Your task to perform on an android device: toggle sleep mode Image 0: 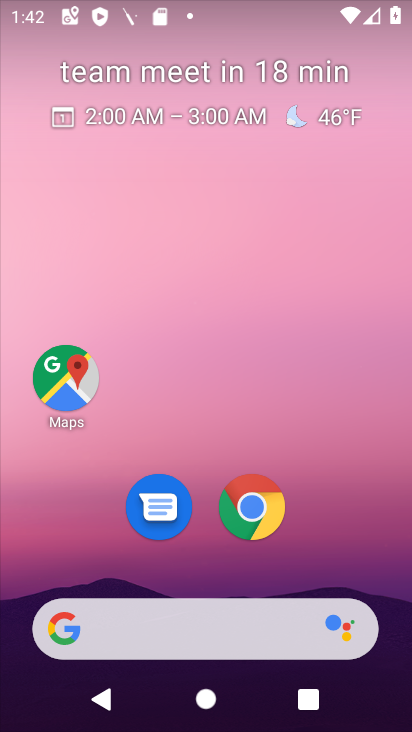
Step 0: drag from (270, 664) to (362, 84)
Your task to perform on an android device: toggle sleep mode Image 1: 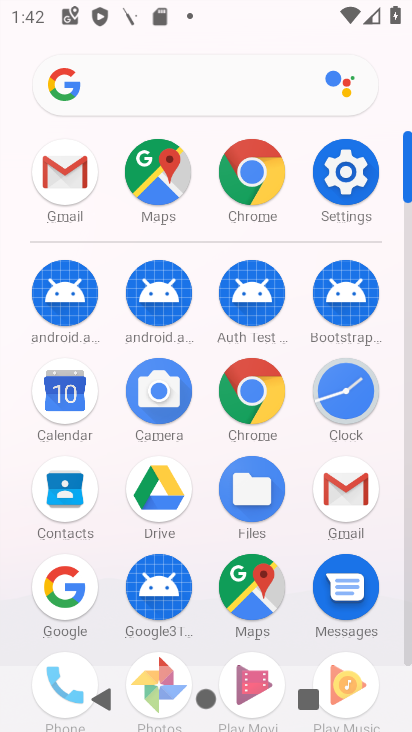
Step 1: click (326, 167)
Your task to perform on an android device: toggle sleep mode Image 2: 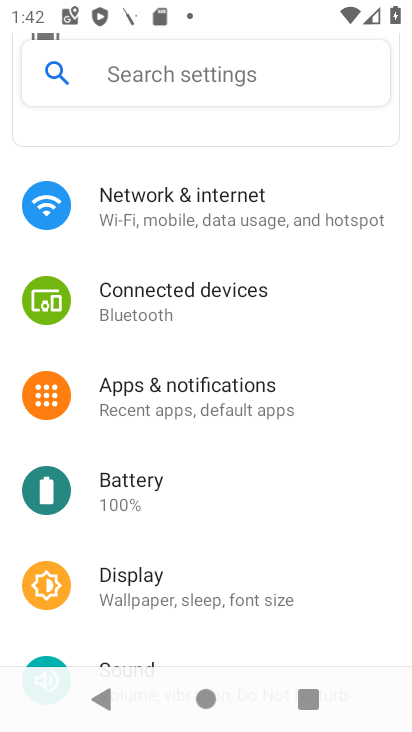
Step 2: click (197, 78)
Your task to perform on an android device: toggle sleep mode Image 3: 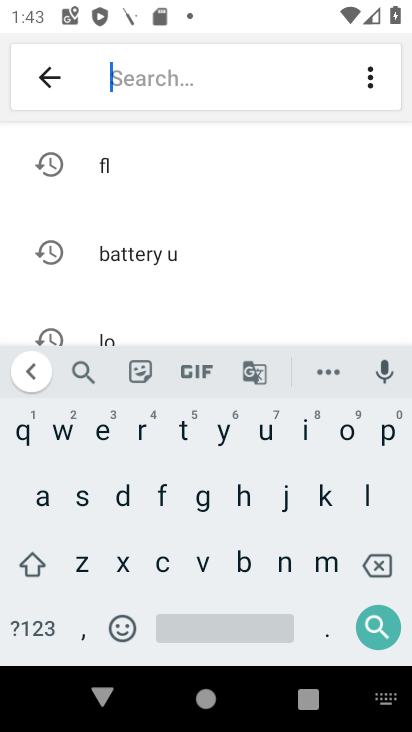
Step 3: click (78, 499)
Your task to perform on an android device: toggle sleep mode Image 4: 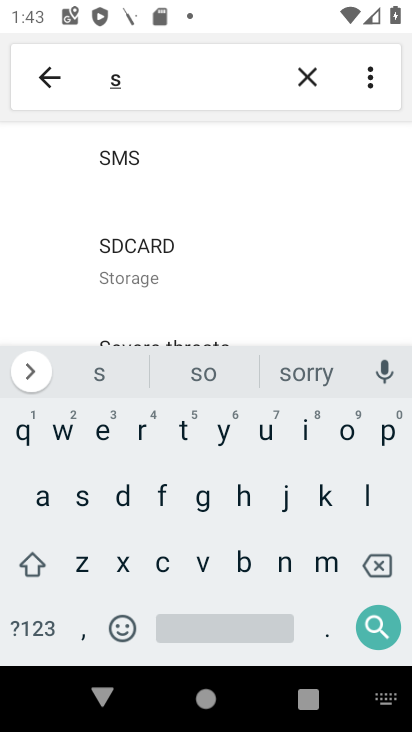
Step 4: click (368, 492)
Your task to perform on an android device: toggle sleep mode Image 5: 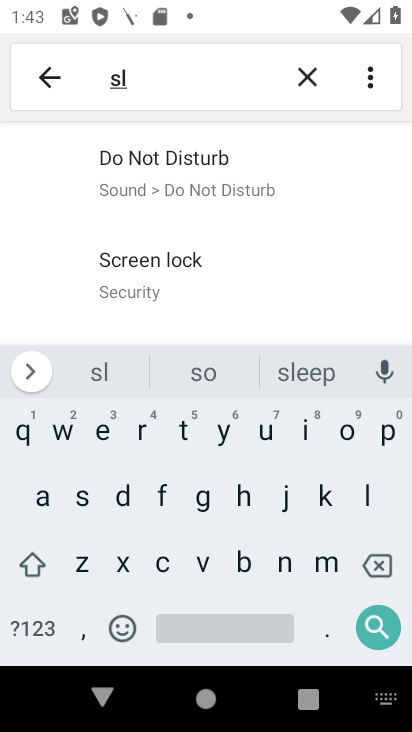
Step 5: click (218, 195)
Your task to perform on an android device: toggle sleep mode Image 6: 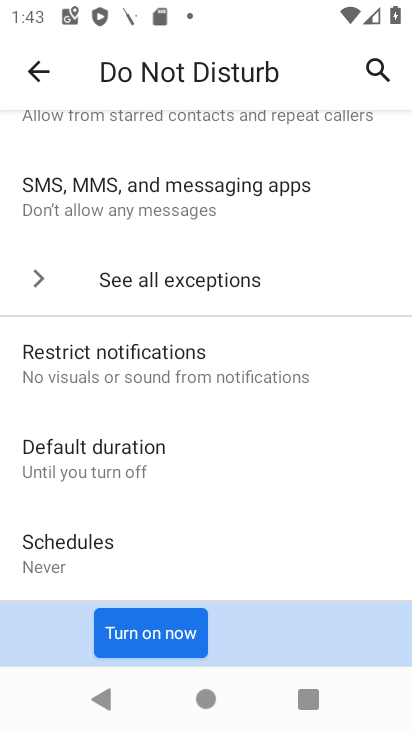
Step 6: click (184, 646)
Your task to perform on an android device: toggle sleep mode Image 7: 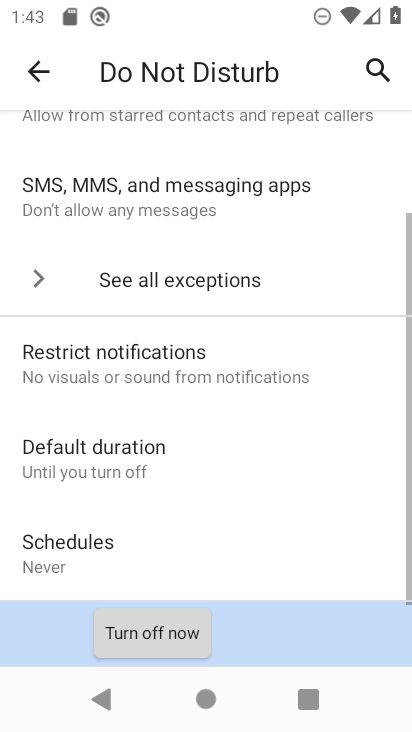
Step 7: click (183, 634)
Your task to perform on an android device: toggle sleep mode Image 8: 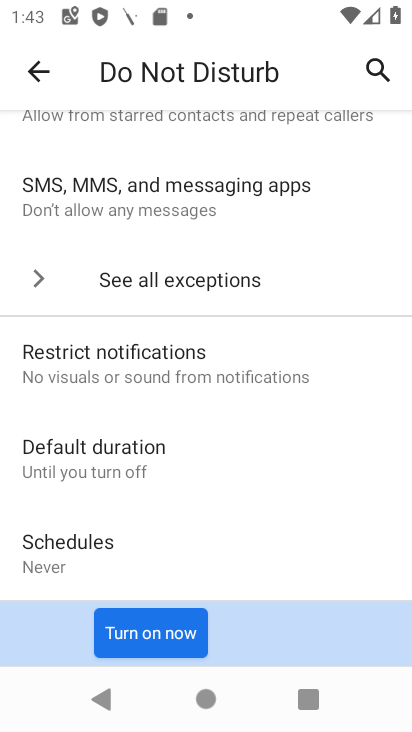
Step 8: task complete